Your task to perform on an android device: What's the weather going to be tomorrow? Image 0: 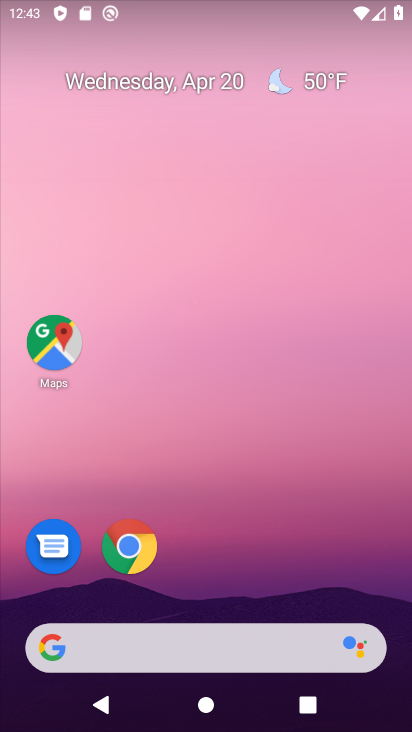
Step 0: click (284, 80)
Your task to perform on an android device: What's the weather going to be tomorrow? Image 1: 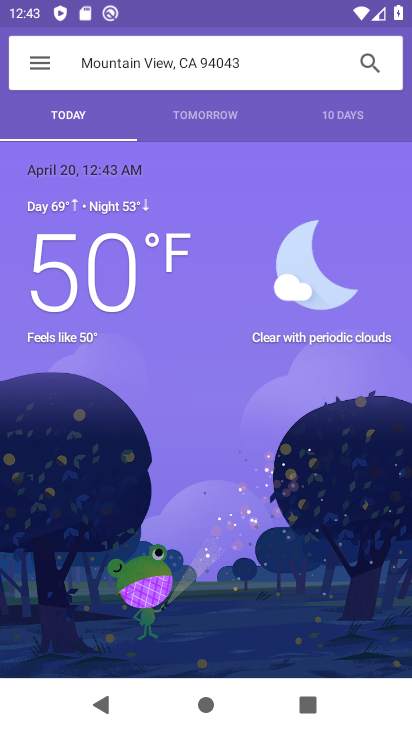
Step 1: click (200, 111)
Your task to perform on an android device: What's the weather going to be tomorrow? Image 2: 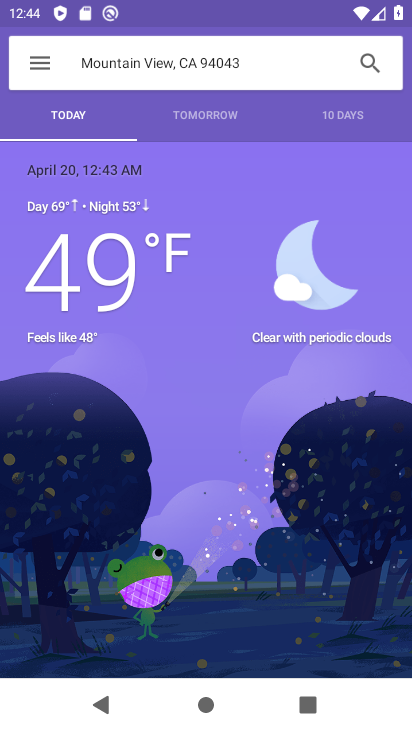
Step 2: click (190, 123)
Your task to perform on an android device: What's the weather going to be tomorrow? Image 3: 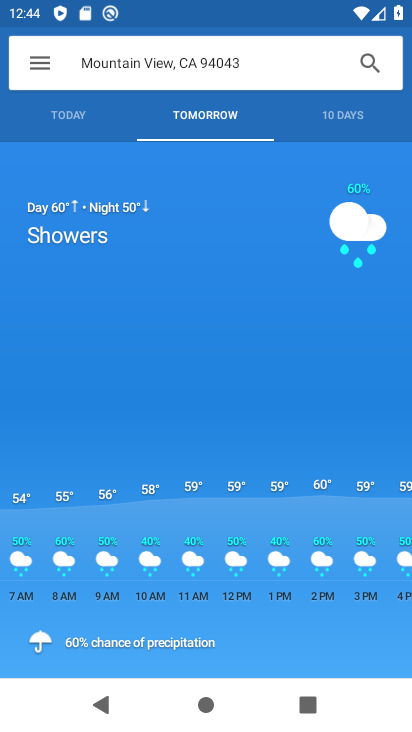
Step 3: task complete